Your task to perform on an android device: set the timer Image 0: 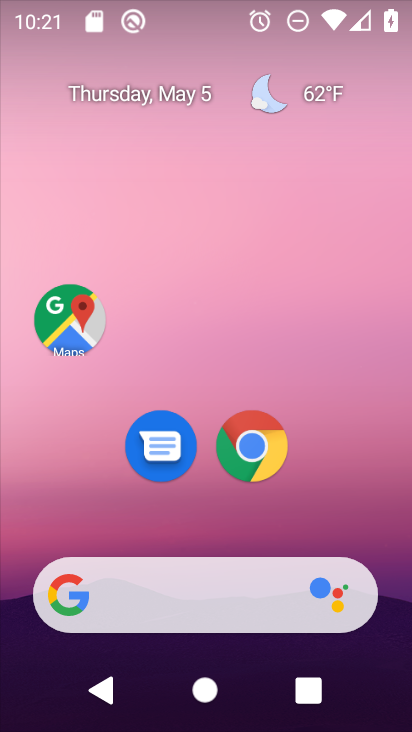
Step 0: drag from (291, 630) to (293, 234)
Your task to perform on an android device: set the timer Image 1: 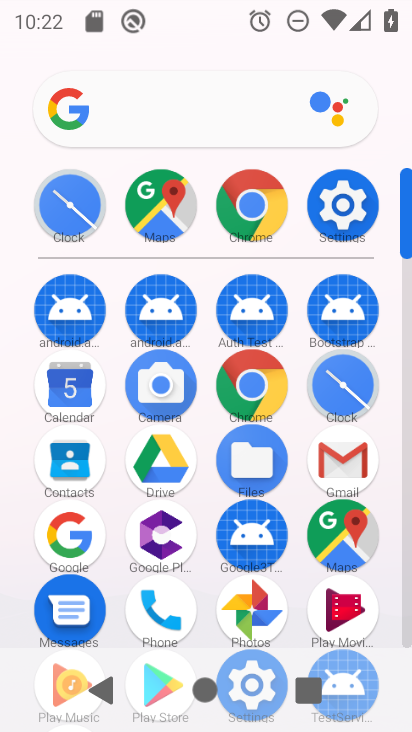
Step 1: click (343, 226)
Your task to perform on an android device: set the timer Image 2: 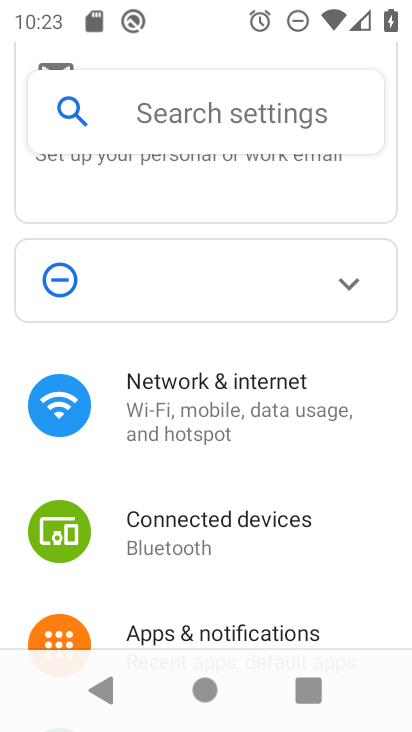
Step 2: press home button
Your task to perform on an android device: set the timer Image 3: 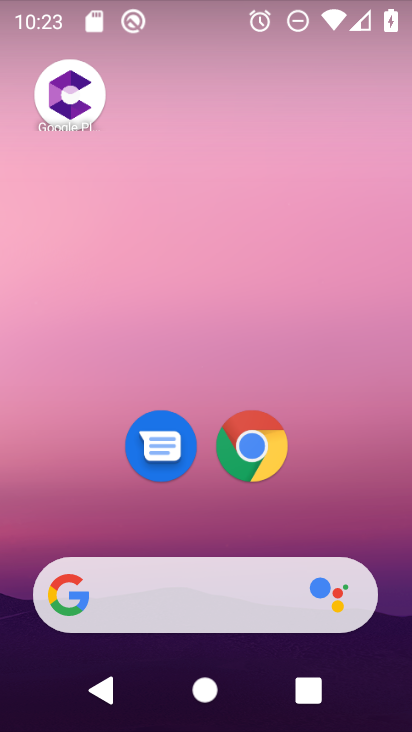
Step 3: drag from (351, 631) to (304, 159)
Your task to perform on an android device: set the timer Image 4: 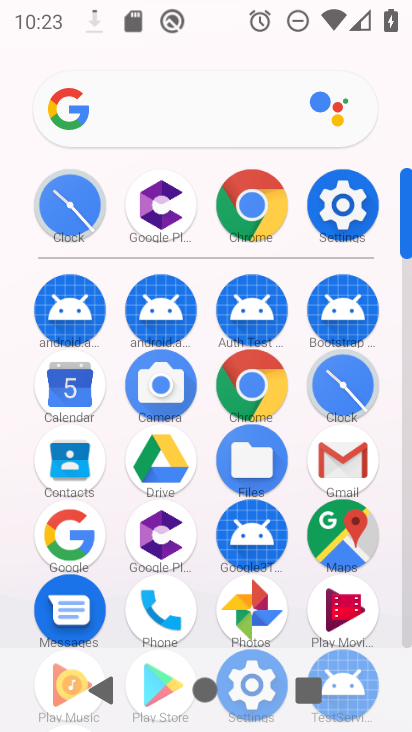
Step 4: click (70, 225)
Your task to perform on an android device: set the timer Image 5: 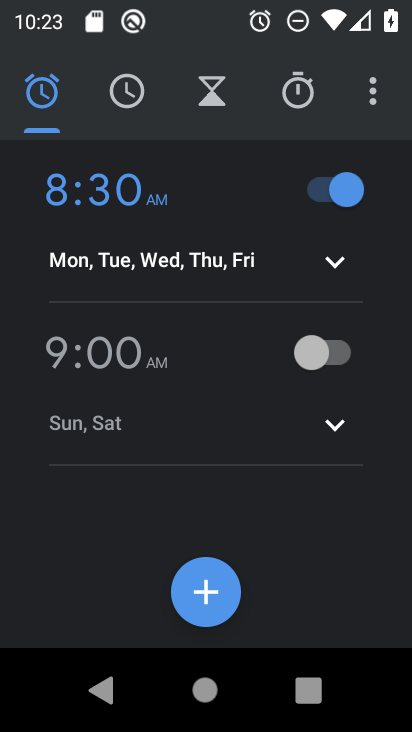
Step 5: click (291, 95)
Your task to perform on an android device: set the timer Image 6: 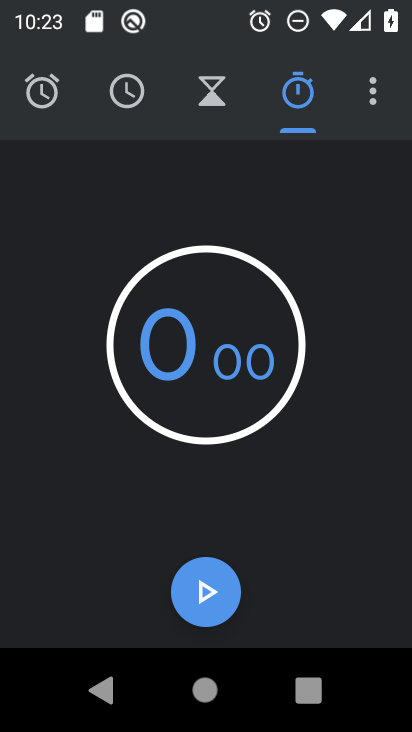
Step 6: click (221, 95)
Your task to perform on an android device: set the timer Image 7: 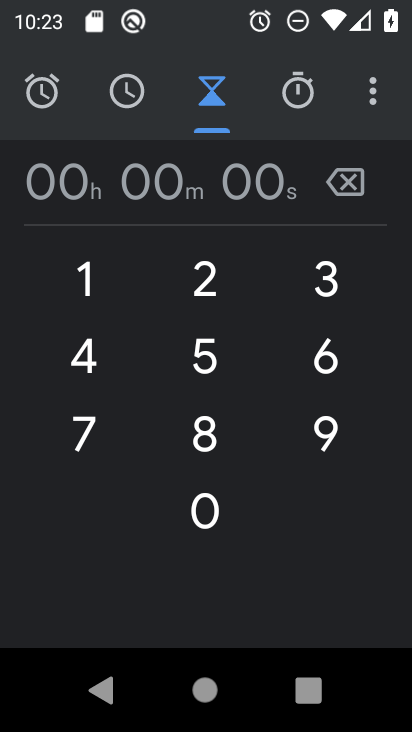
Step 7: click (195, 385)
Your task to perform on an android device: set the timer Image 8: 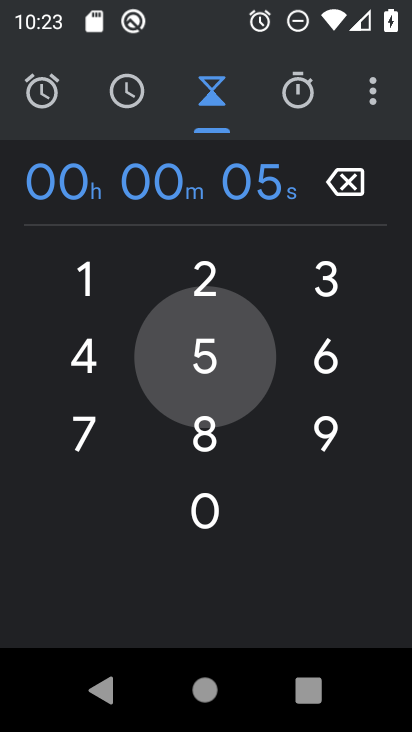
Step 8: click (201, 358)
Your task to perform on an android device: set the timer Image 9: 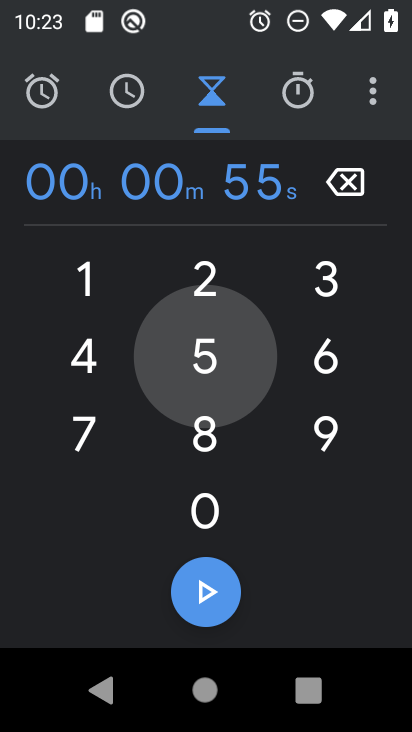
Step 9: click (122, 385)
Your task to perform on an android device: set the timer Image 10: 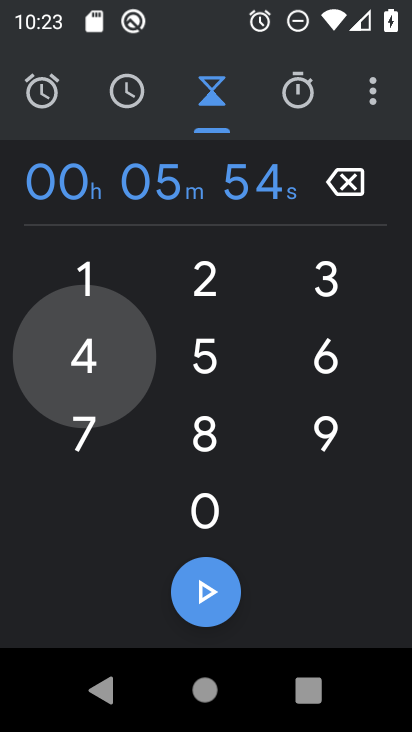
Step 10: click (200, 504)
Your task to perform on an android device: set the timer Image 11: 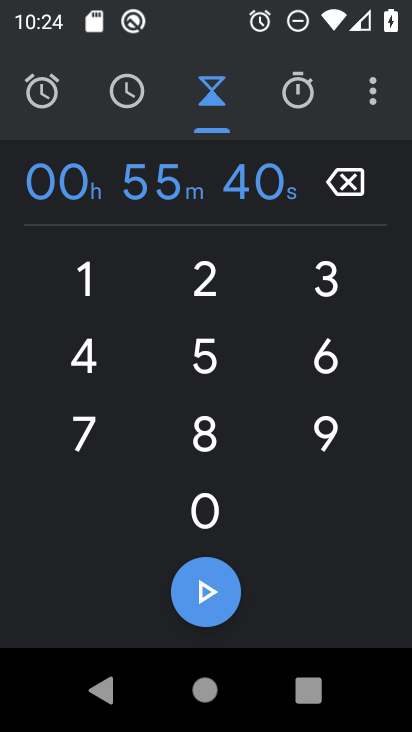
Step 11: click (205, 448)
Your task to perform on an android device: set the timer Image 12: 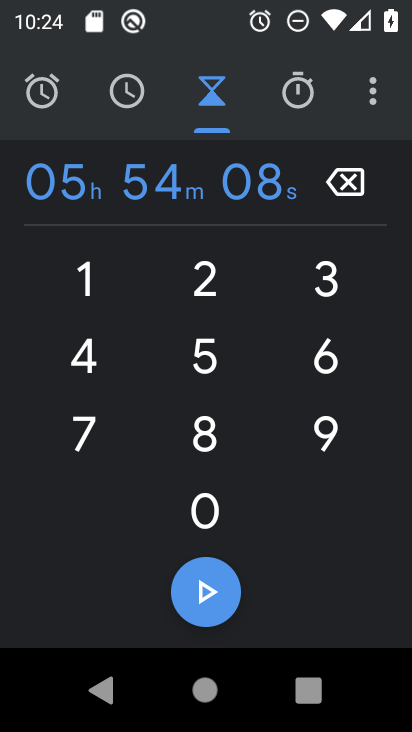
Step 12: task complete